Your task to perform on an android device: Set the phone to "Do not disturb". Image 0: 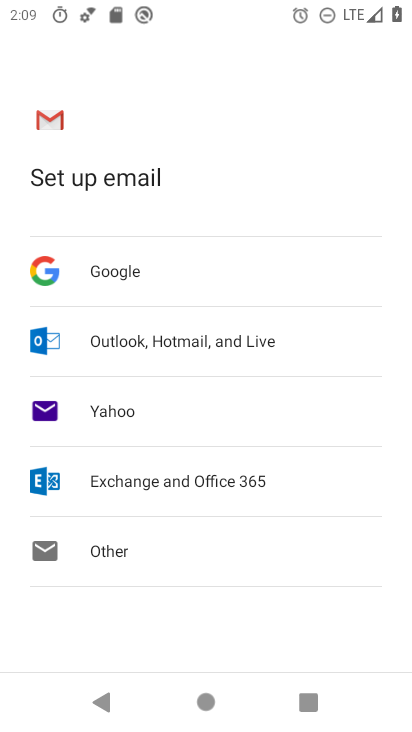
Step 0: press home button
Your task to perform on an android device: Set the phone to "Do not disturb". Image 1: 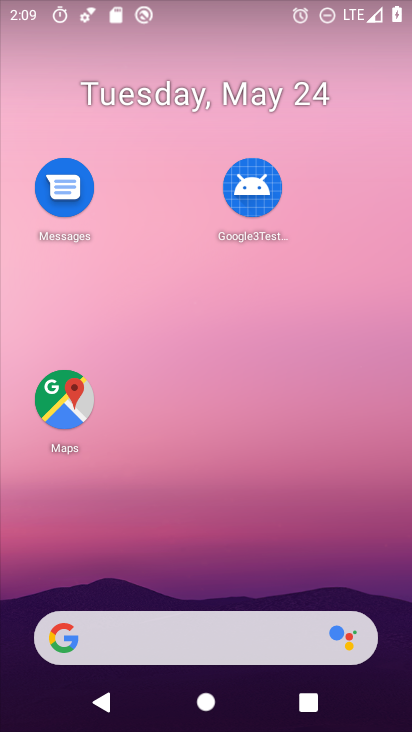
Step 1: drag from (223, 575) to (233, 20)
Your task to perform on an android device: Set the phone to "Do not disturb". Image 2: 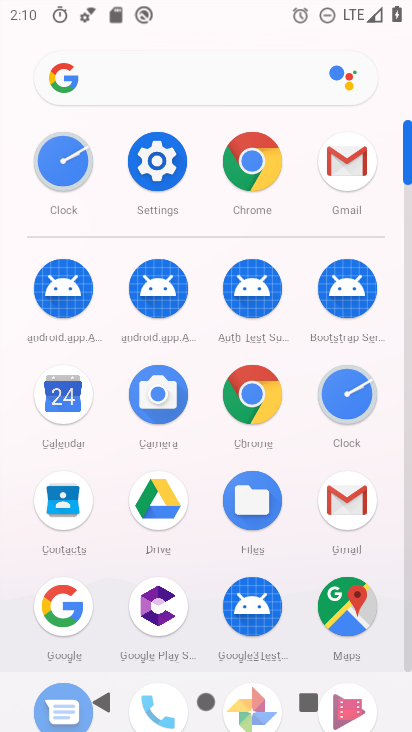
Step 2: drag from (199, 637) to (150, 212)
Your task to perform on an android device: Set the phone to "Do not disturb". Image 3: 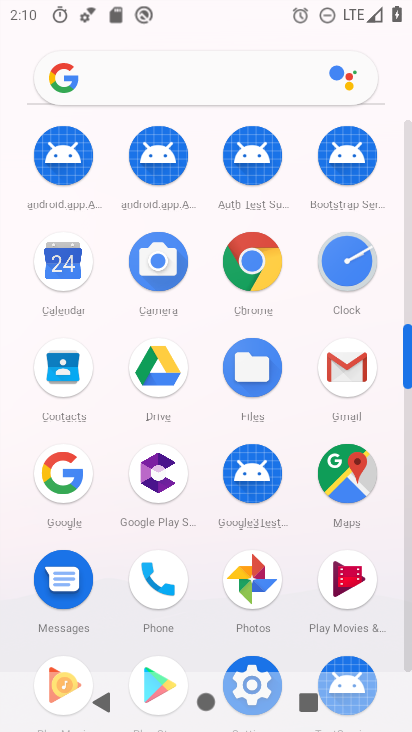
Step 3: drag from (193, 621) to (171, 271)
Your task to perform on an android device: Set the phone to "Do not disturb". Image 4: 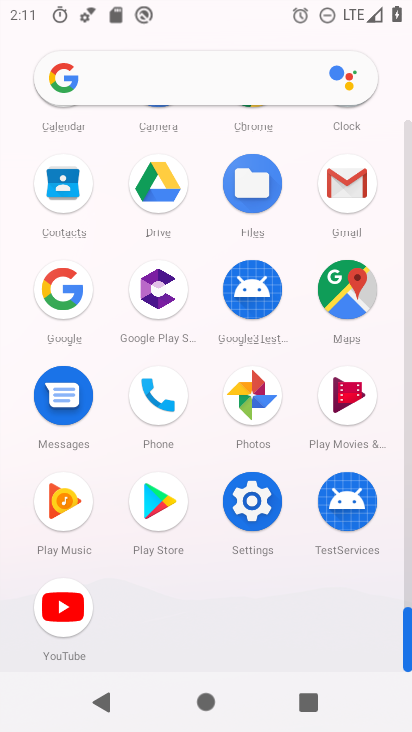
Step 4: click (237, 517)
Your task to perform on an android device: Set the phone to "Do not disturb". Image 5: 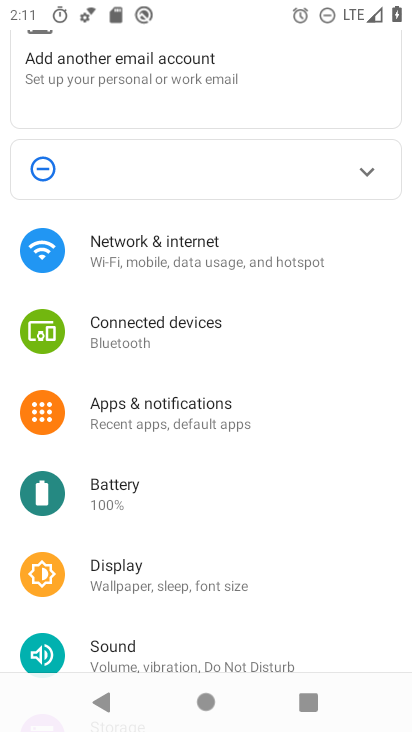
Step 5: drag from (160, 530) to (162, 142)
Your task to perform on an android device: Set the phone to "Do not disturb". Image 6: 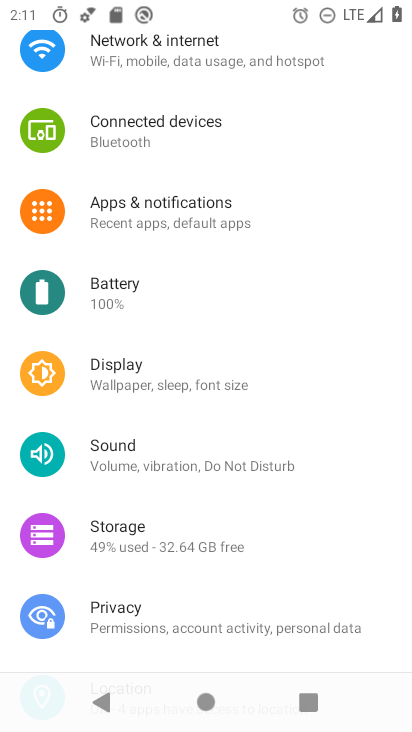
Step 6: click (108, 458)
Your task to perform on an android device: Set the phone to "Do not disturb". Image 7: 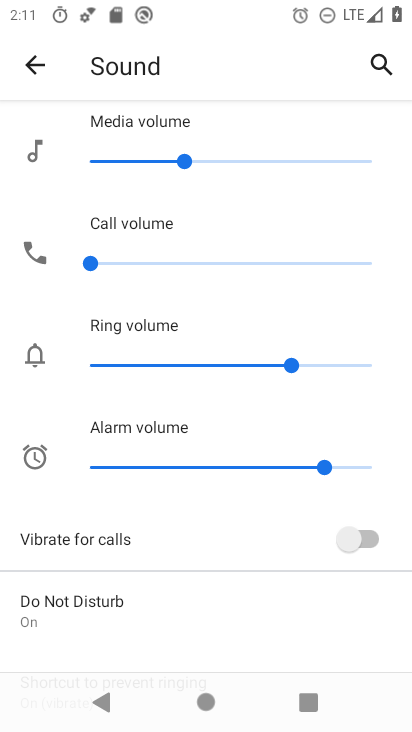
Step 7: click (56, 625)
Your task to perform on an android device: Set the phone to "Do not disturb". Image 8: 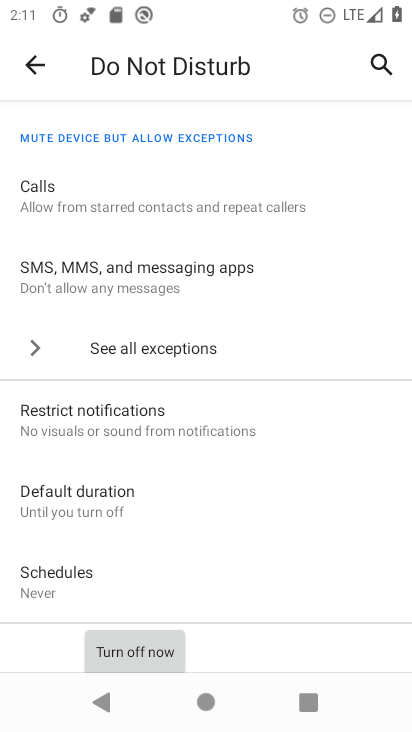
Step 8: task complete